Your task to perform on an android device: Open calendar and show me the first week of next month Image 0: 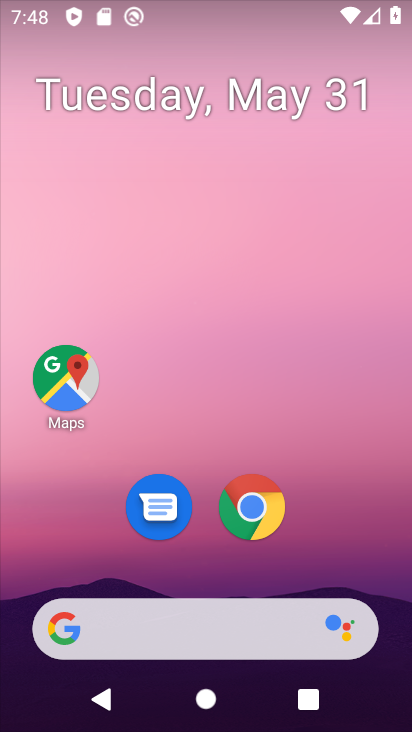
Step 0: drag from (388, 602) to (362, 53)
Your task to perform on an android device: Open calendar and show me the first week of next month Image 1: 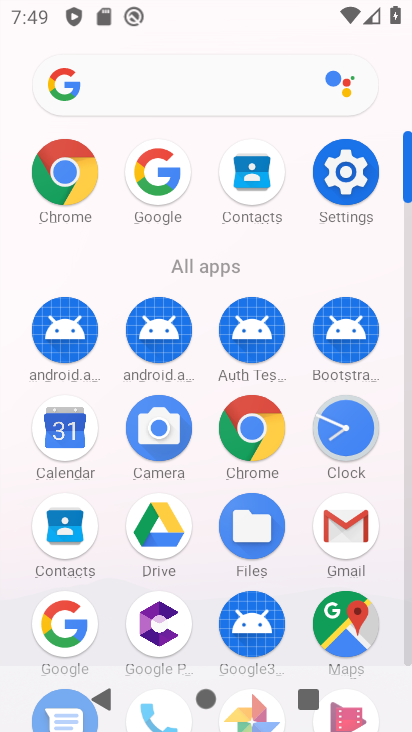
Step 1: click (56, 435)
Your task to perform on an android device: Open calendar and show me the first week of next month Image 2: 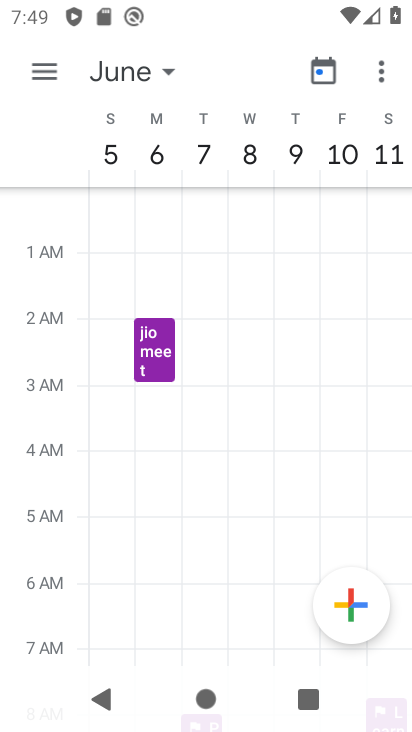
Step 2: task complete